Your task to perform on an android device: move a message to another label in the gmail app Image 0: 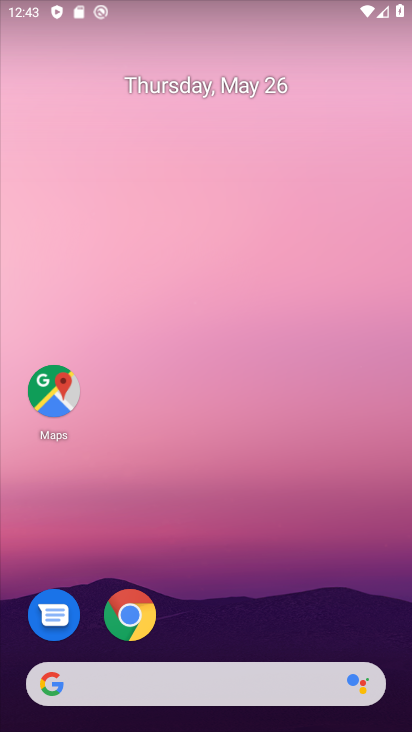
Step 0: drag from (248, 526) to (275, 189)
Your task to perform on an android device: move a message to another label in the gmail app Image 1: 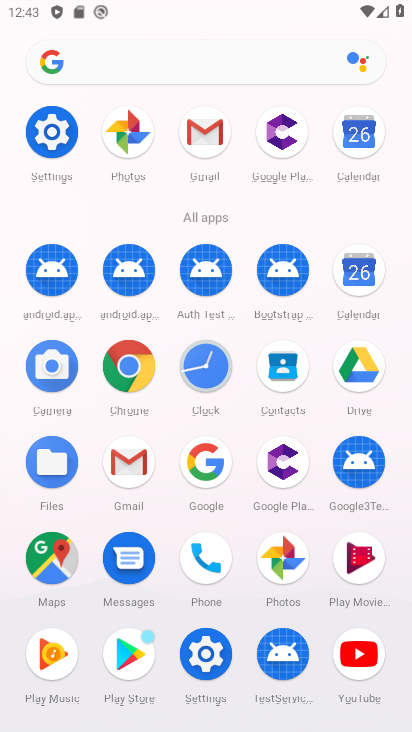
Step 1: click (195, 129)
Your task to perform on an android device: move a message to another label in the gmail app Image 2: 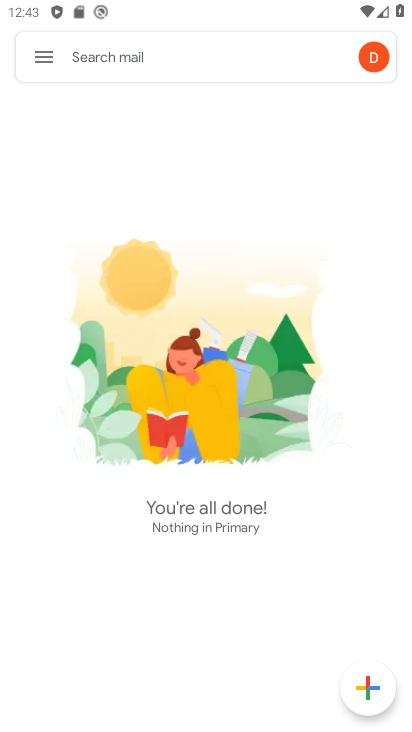
Step 2: click (45, 53)
Your task to perform on an android device: move a message to another label in the gmail app Image 3: 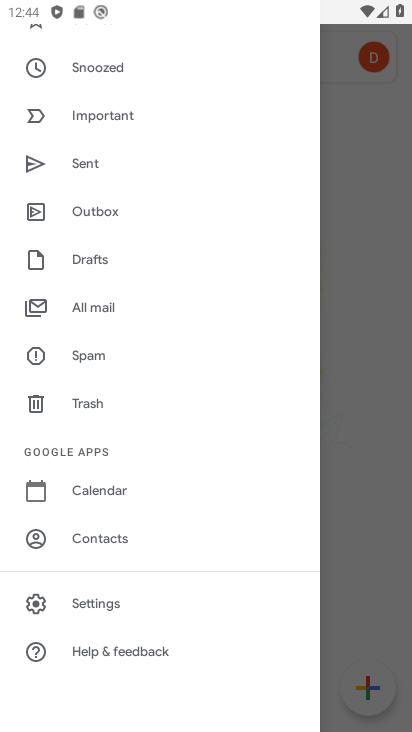
Step 3: click (116, 306)
Your task to perform on an android device: move a message to another label in the gmail app Image 4: 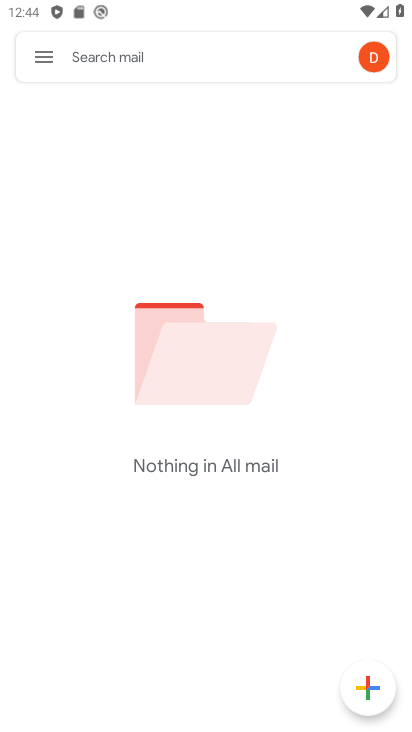
Step 4: task complete